Your task to perform on an android device: turn off javascript in the chrome app Image 0: 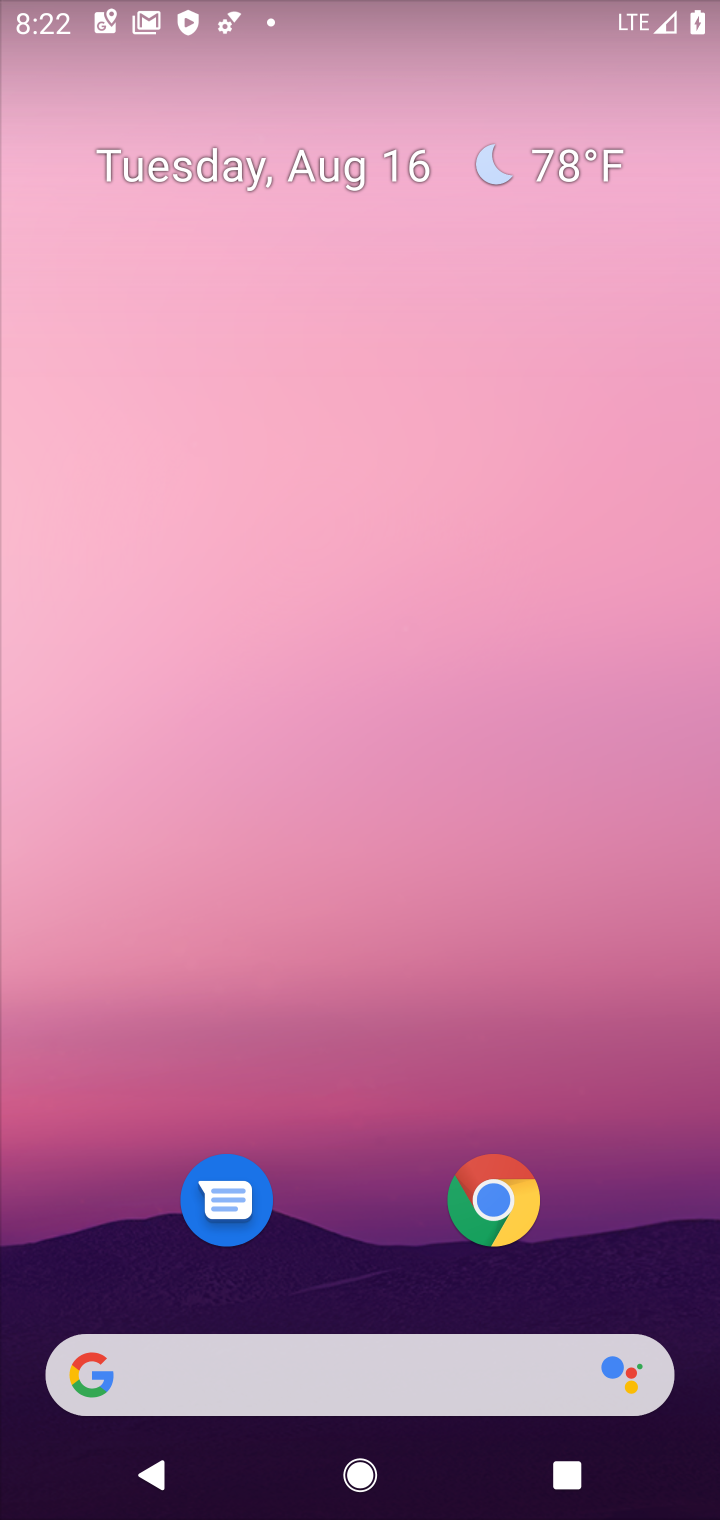
Step 0: click (485, 1189)
Your task to perform on an android device: turn off javascript in the chrome app Image 1: 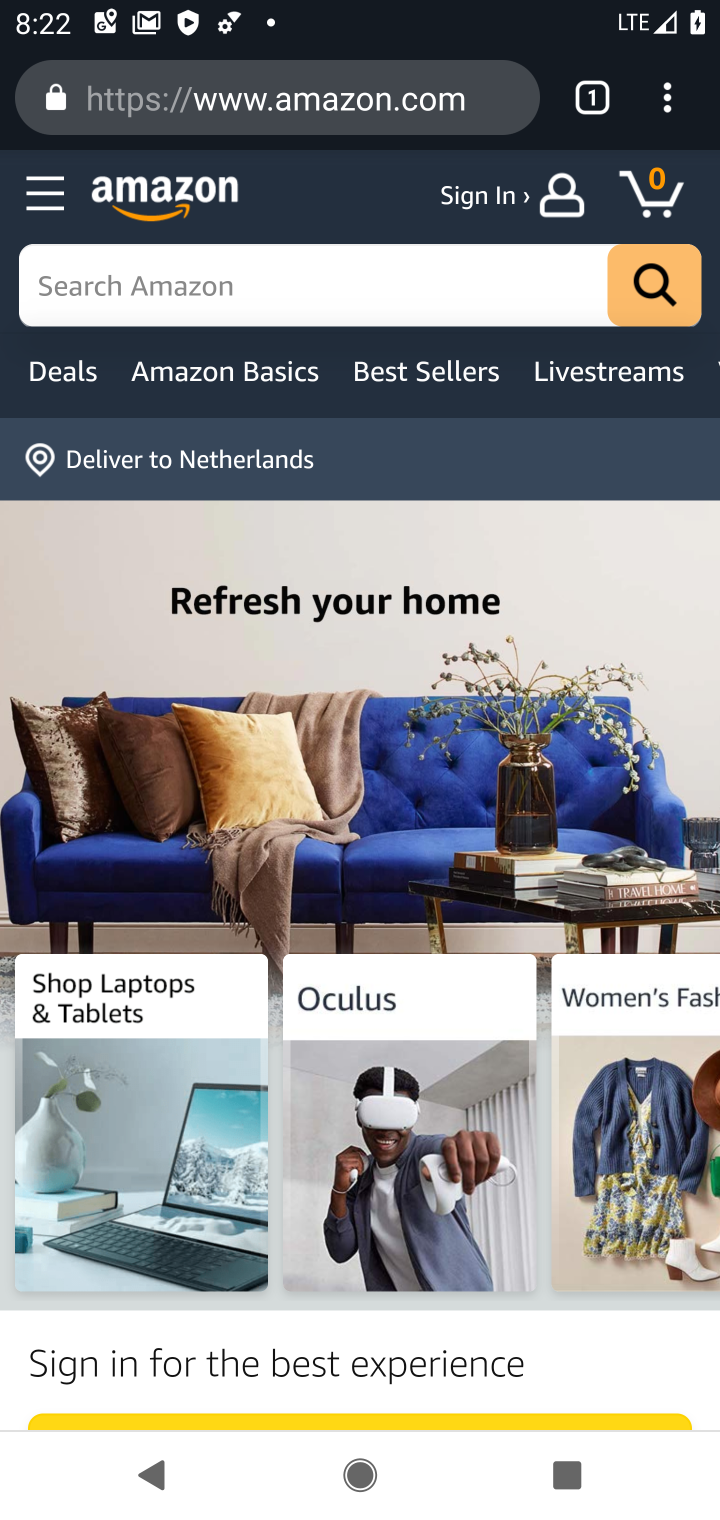
Step 1: click (656, 123)
Your task to perform on an android device: turn off javascript in the chrome app Image 2: 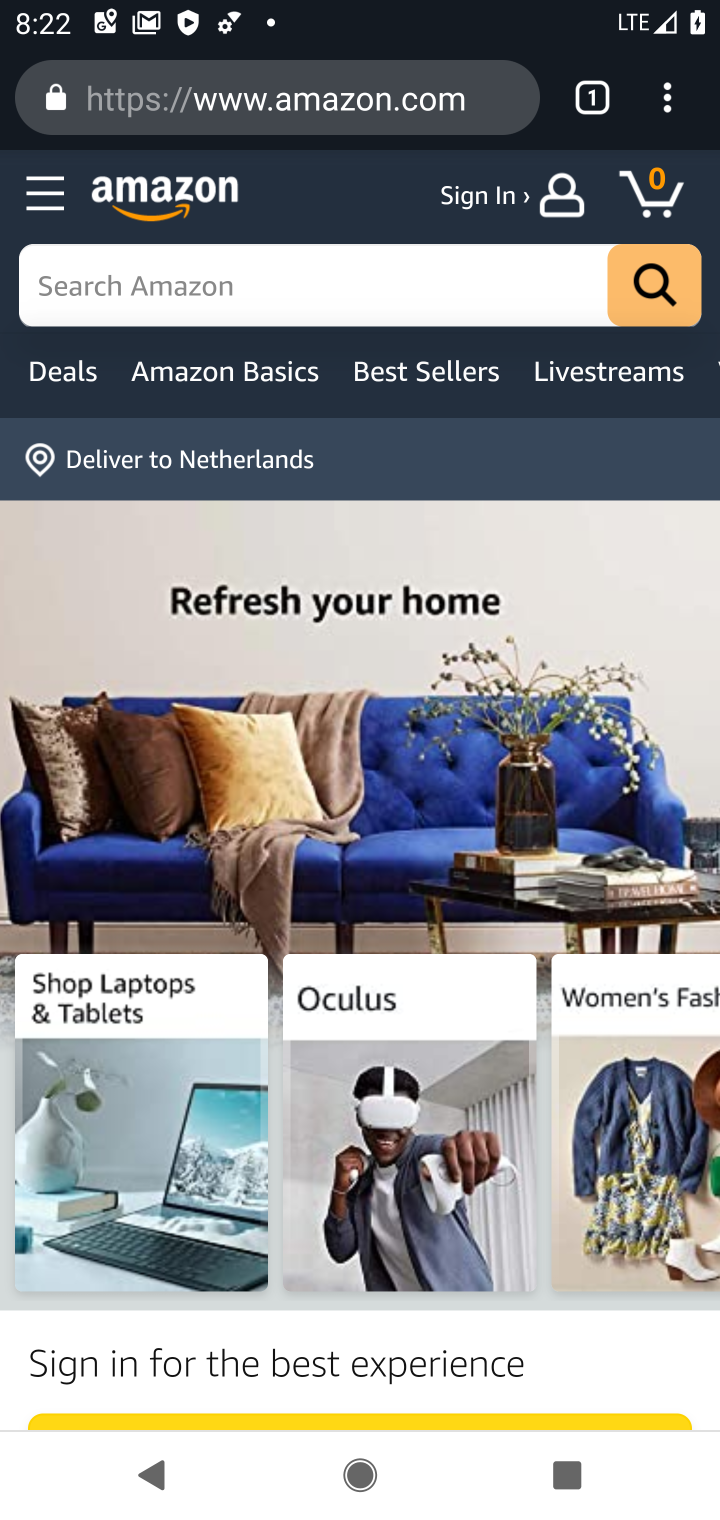
Step 2: click (655, 110)
Your task to perform on an android device: turn off javascript in the chrome app Image 3: 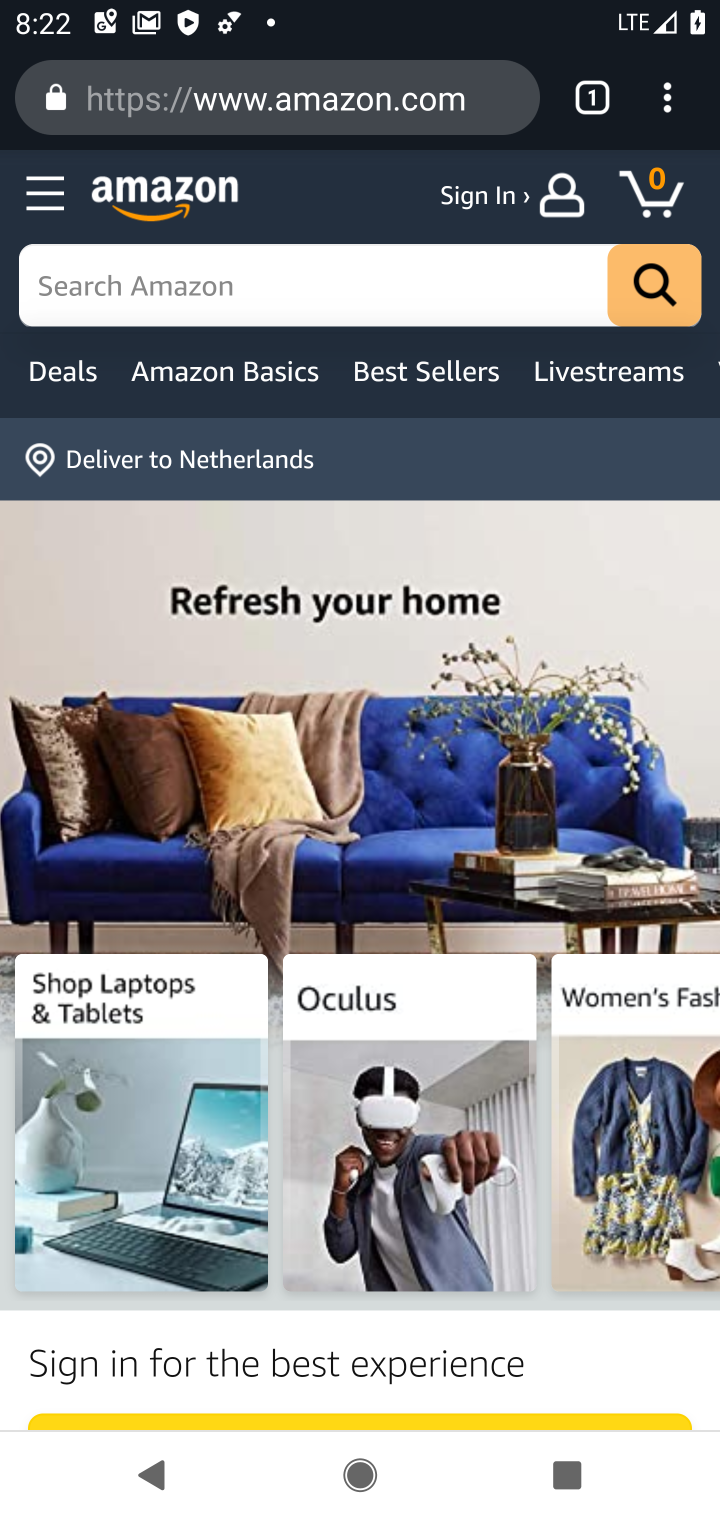
Step 3: click (660, 116)
Your task to perform on an android device: turn off javascript in the chrome app Image 4: 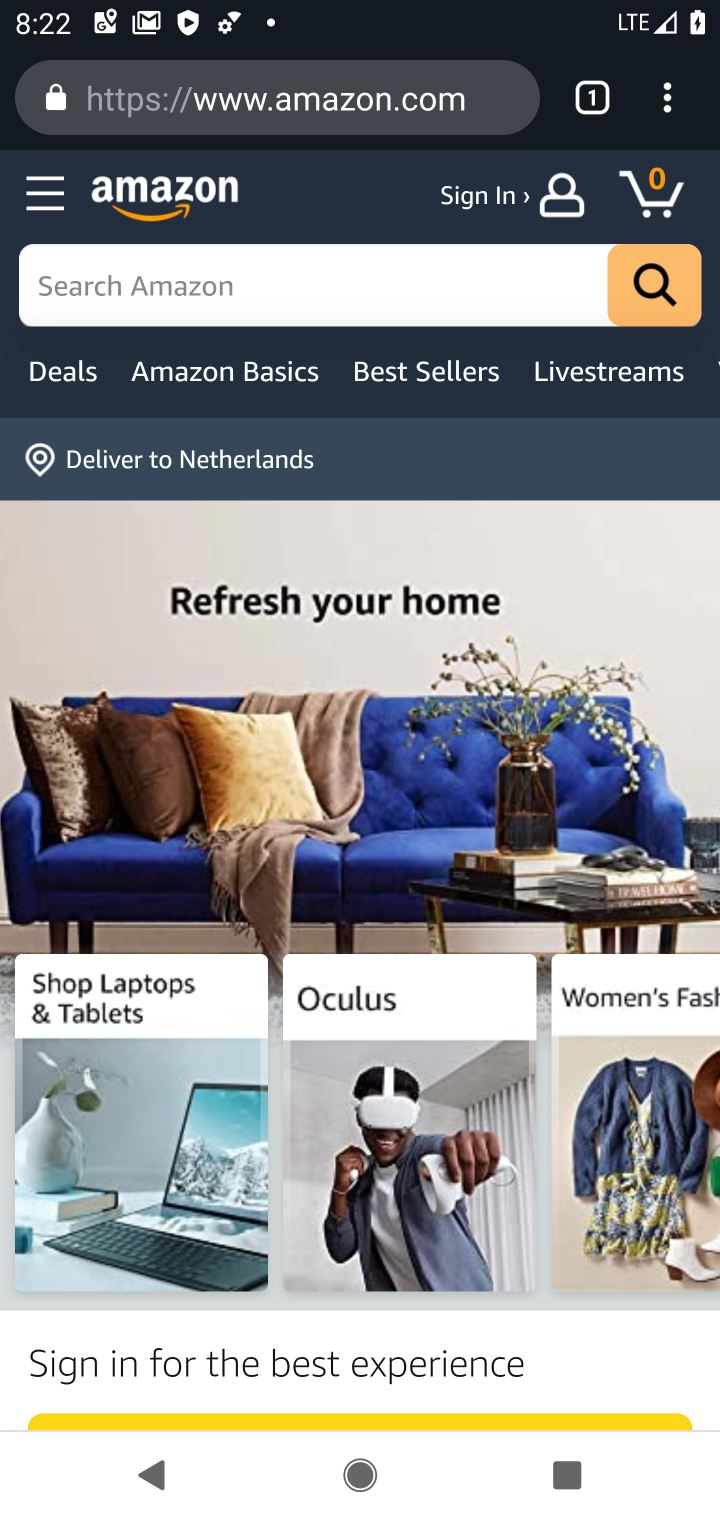
Step 4: click (660, 119)
Your task to perform on an android device: turn off javascript in the chrome app Image 5: 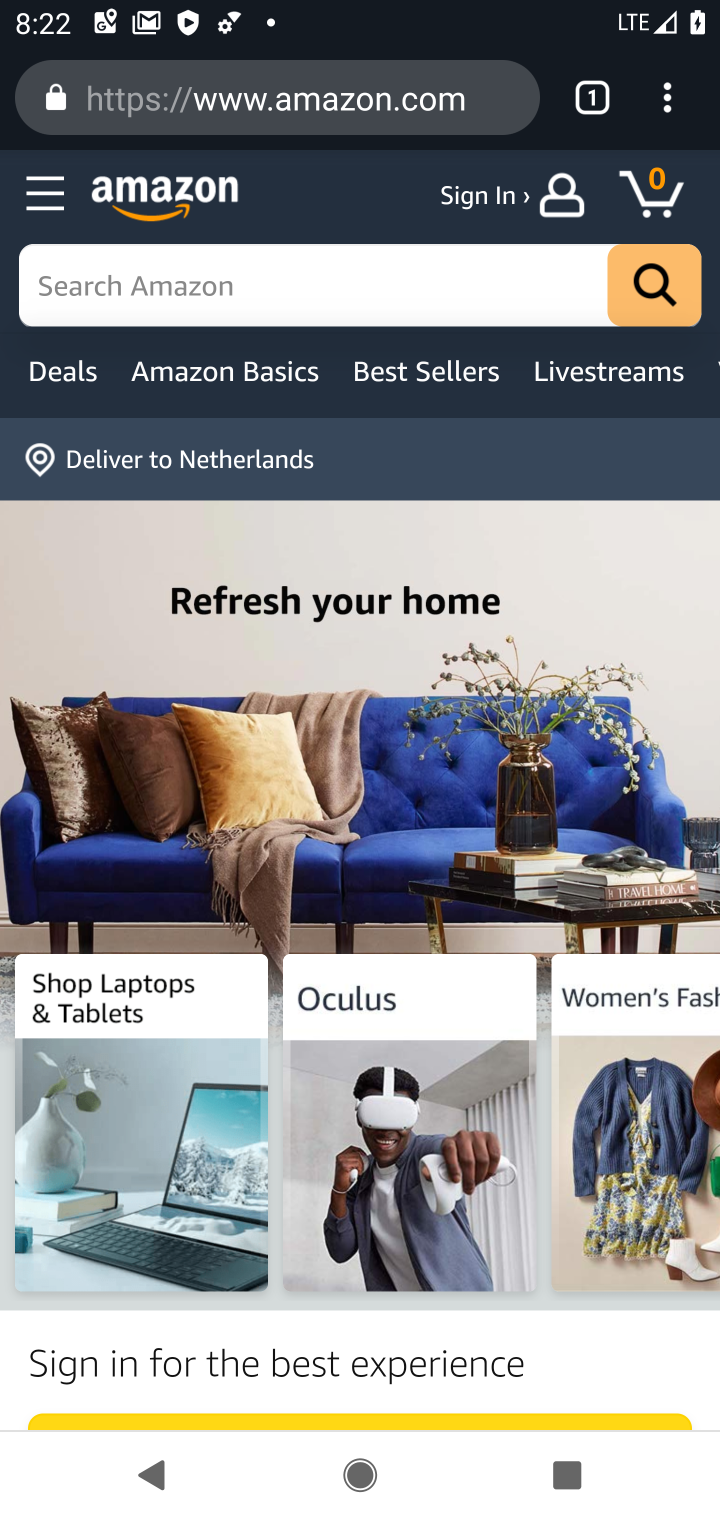
Step 5: click (660, 119)
Your task to perform on an android device: turn off javascript in the chrome app Image 6: 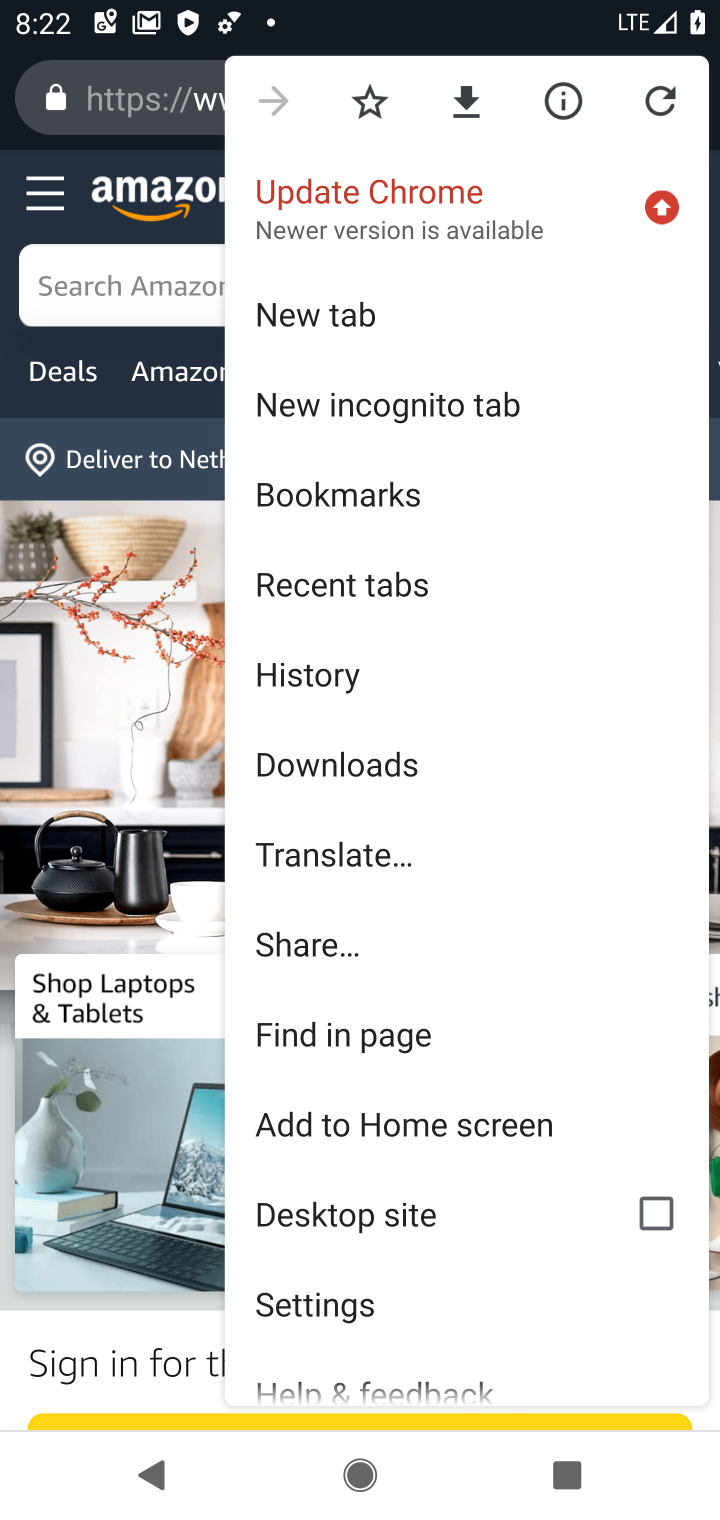
Step 6: drag from (446, 1276) to (487, 842)
Your task to perform on an android device: turn off javascript in the chrome app Image 7: 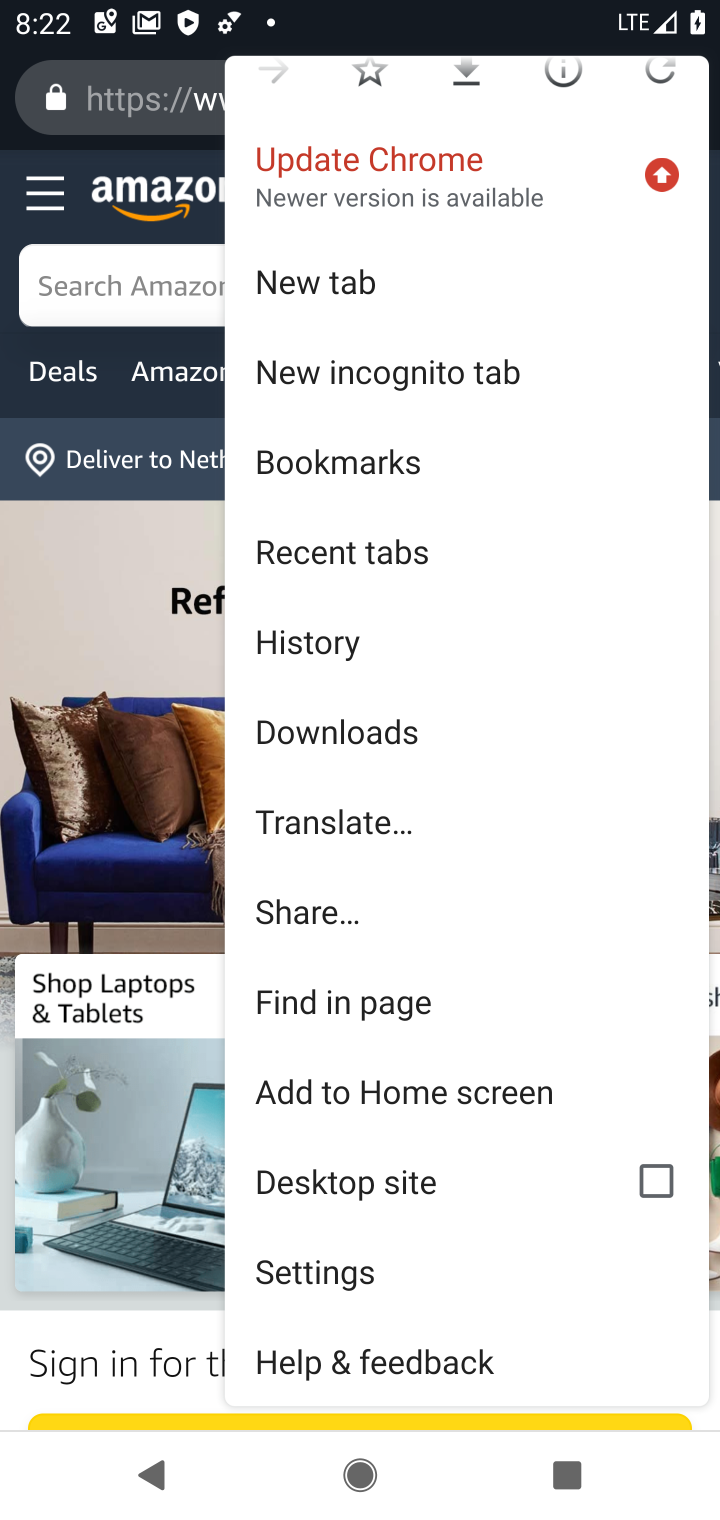
Step 7: click (304, 1268)
Your task to perform on an android device: turn off javascript in the chrome app Image 8: 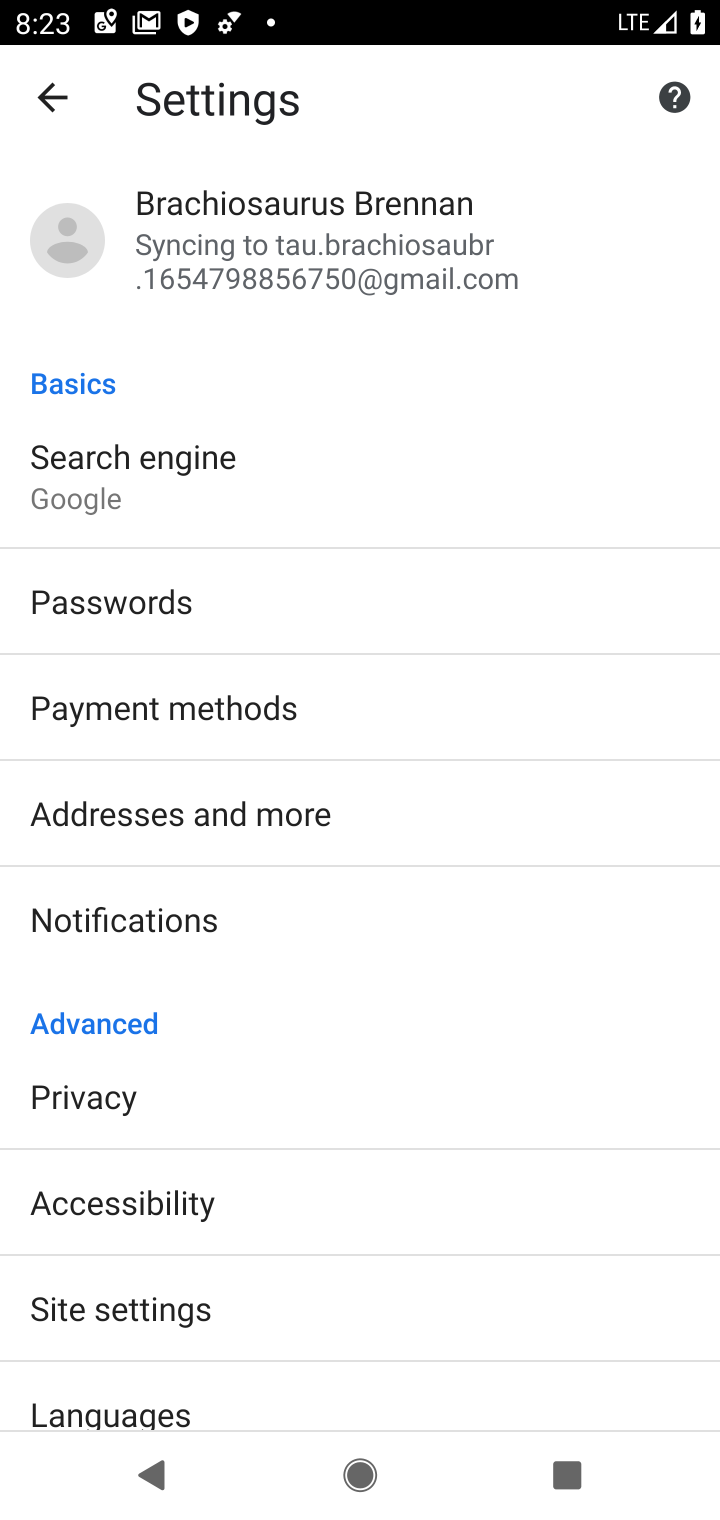
Step 8: drag from (470, 1246) to (485, 805)
Your task to perform on an android device: turn off javascript in the chrome app Image 9: 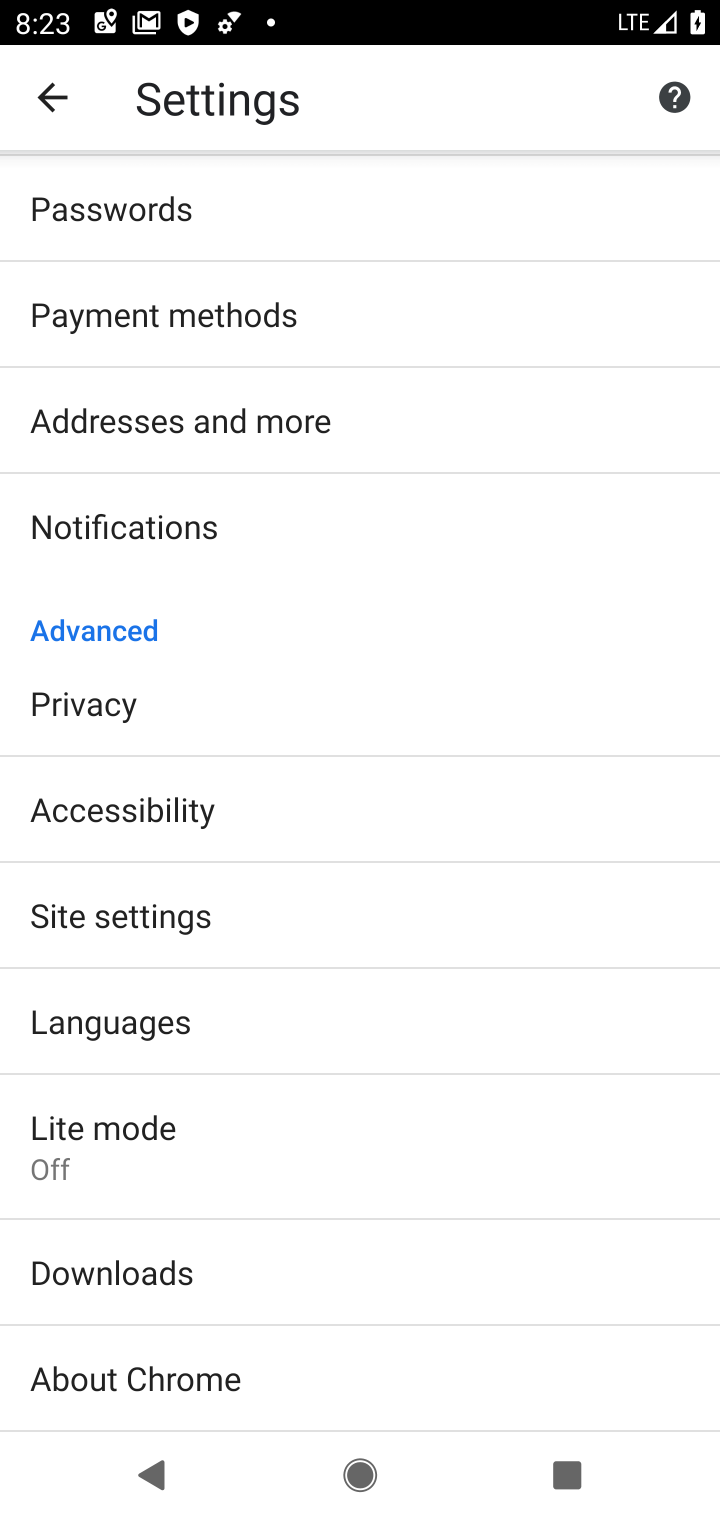
Step 9: click (135, 917)
Your task to perform on an android device: turn off javascript in the chrome app Image 10: 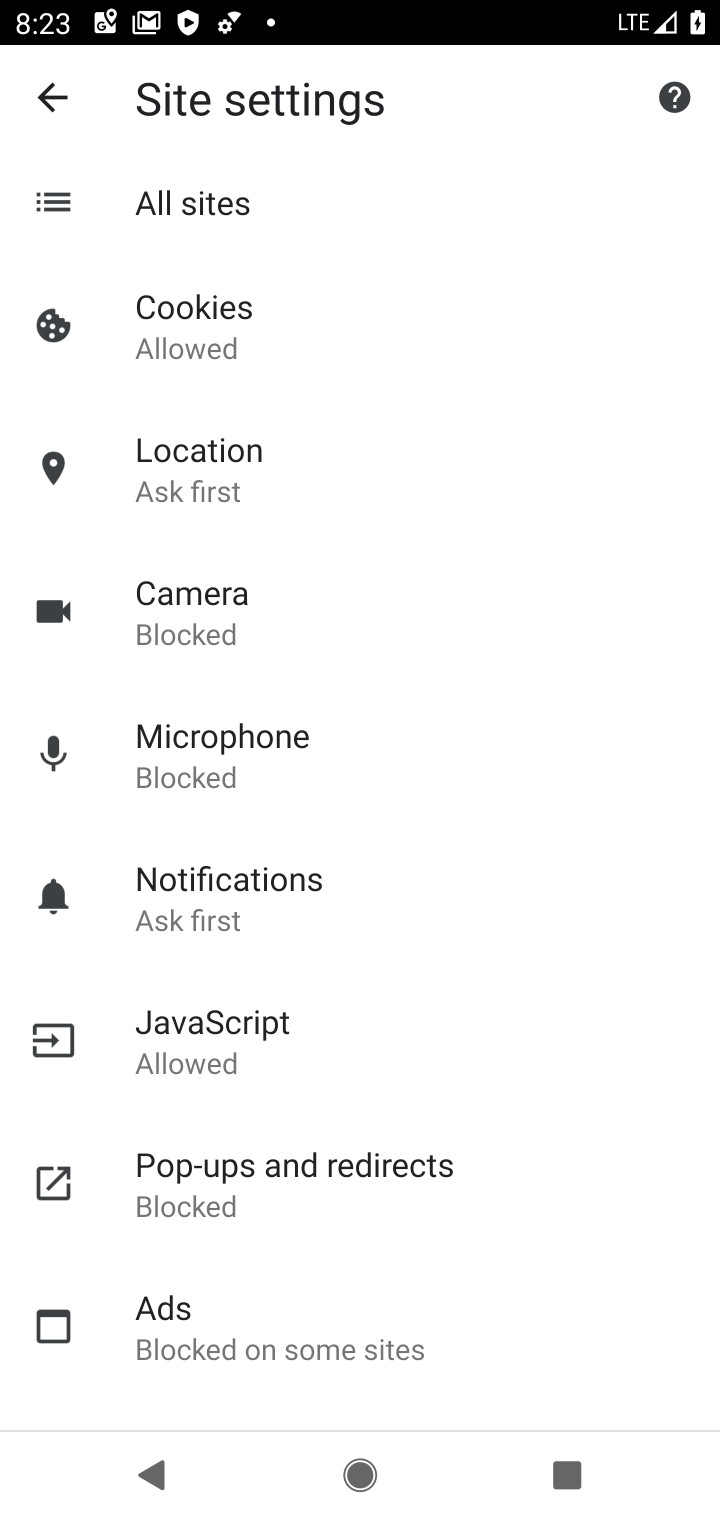
Step 10: click (216, 1041)
Your task to perform on an android device: turn off javascript in the chrome app Image 11: 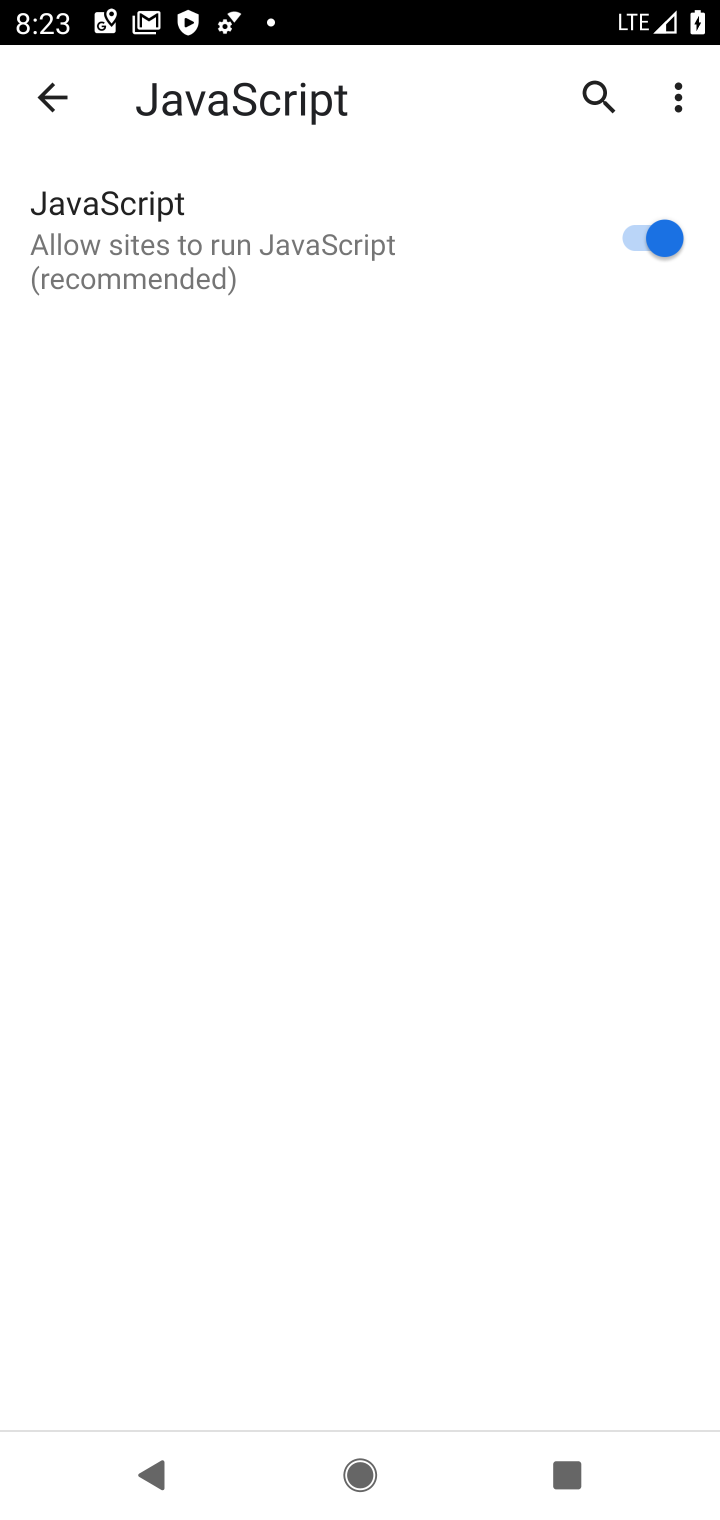
Step 11: click (630, 237)
Your task to perform on an android device: turn off javascript in the chrome app Image 12: 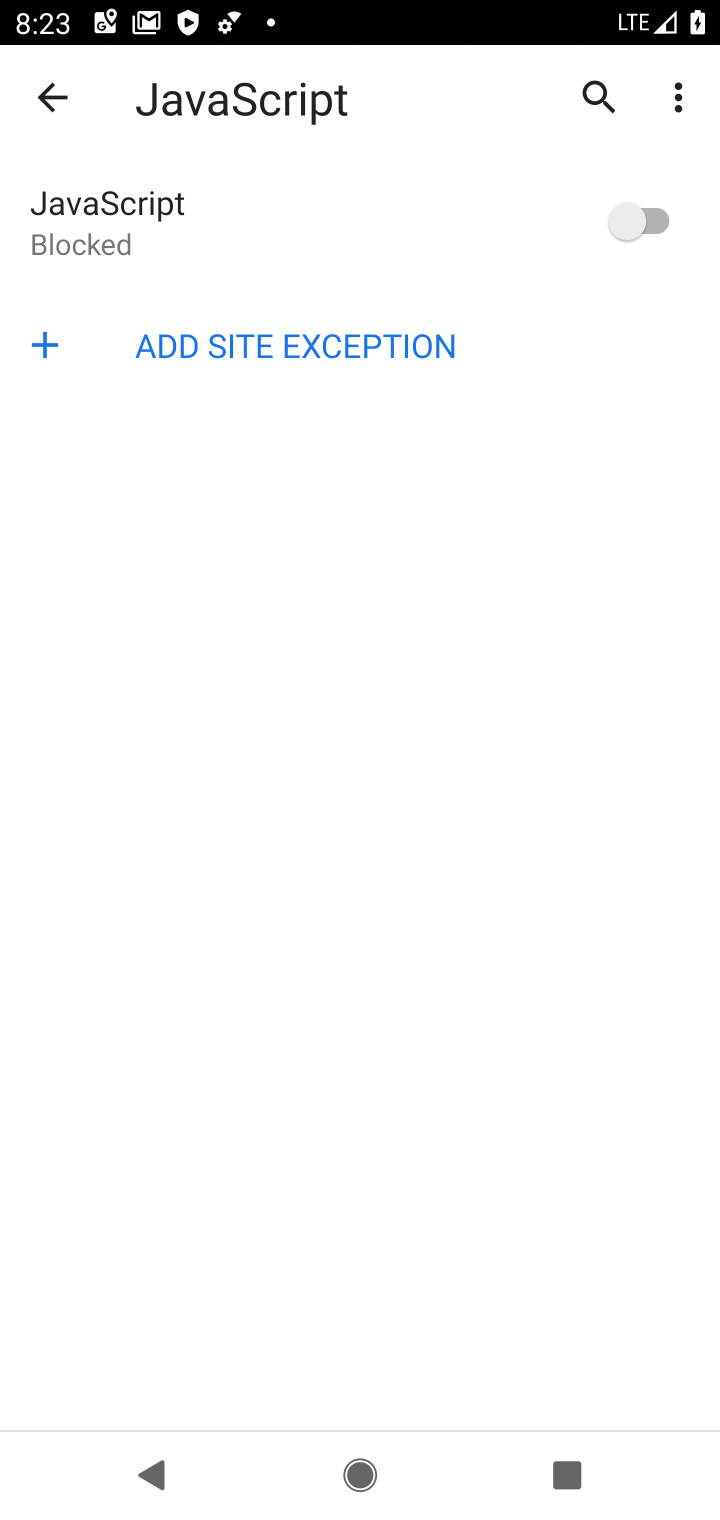
Step 12: task complete